Your task to perform on an android device: Open maps Image 0: 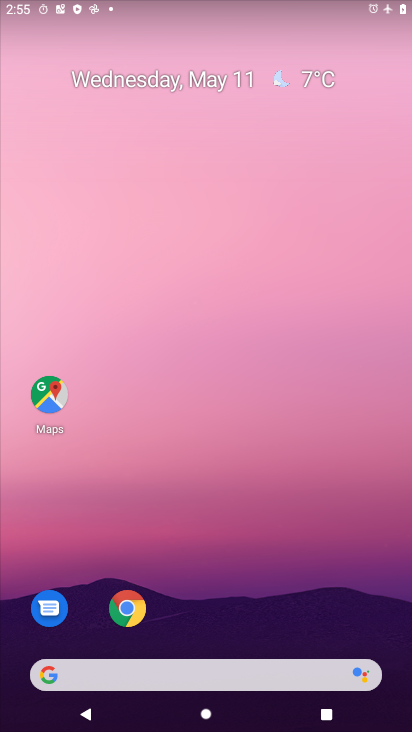
Step 0: click (49, 397)
Your task to perform on an android device: Open maps Image 1: 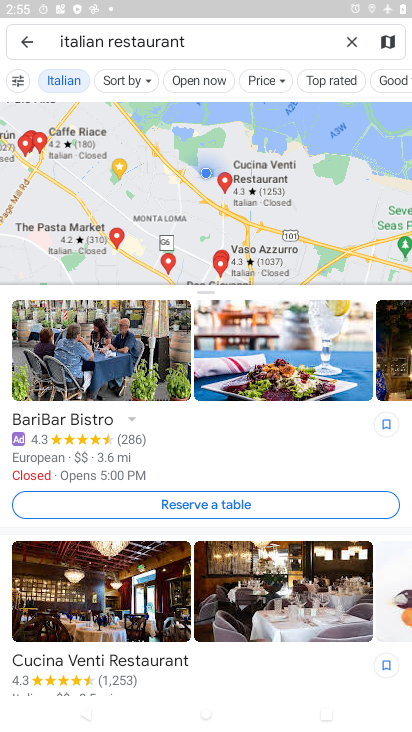
Step 1: task complete